Your task to perform on an android device: Show the shopping cart on costco. Image 0: 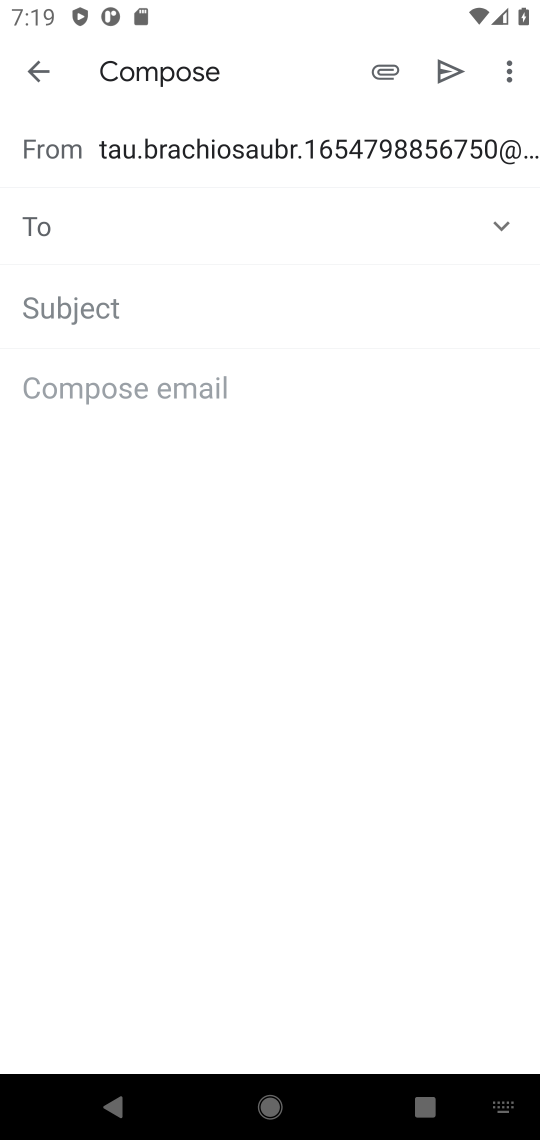
Step 0: press home button
Your task to perform on an android device: Show the shopping cart on costco. Image 1: 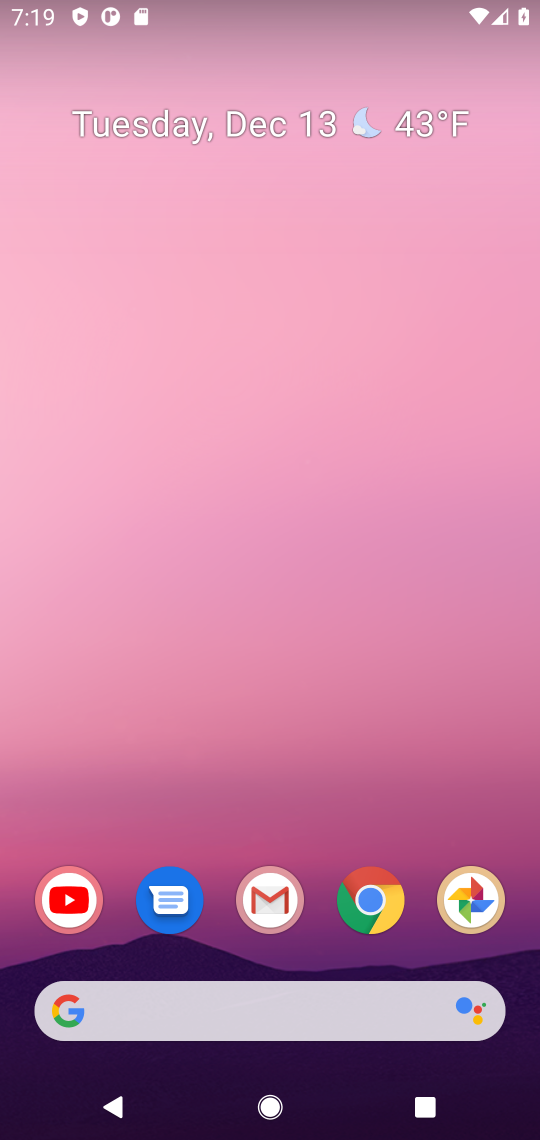
Step 1: click (361, 886)
Your task to perform on an android device: Show the shopping cart on costco. Image 2: 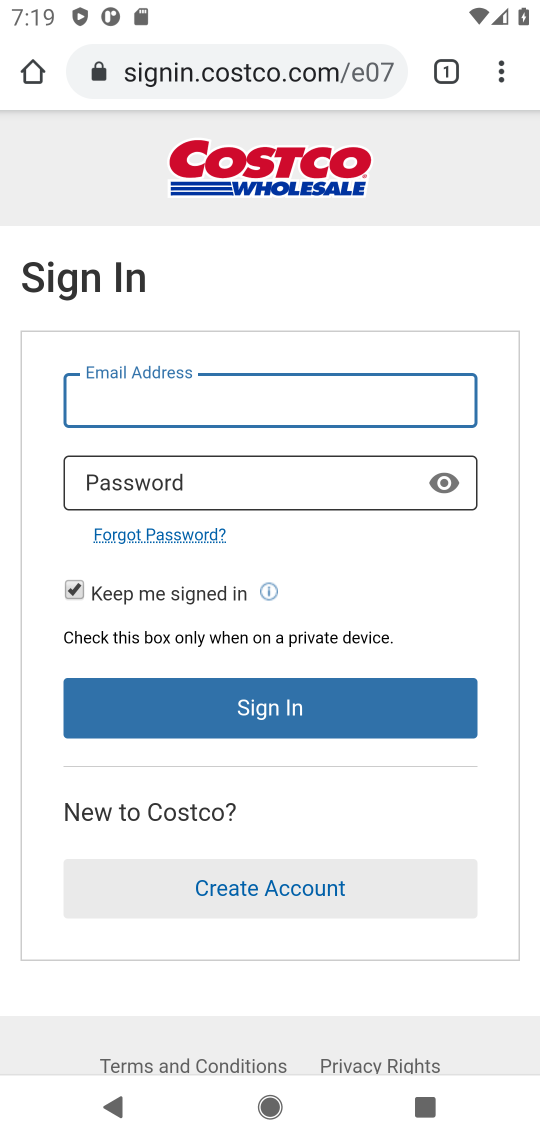
Step 2: click (210, 159)
Your task to perform on an android device: Show the shopping cart on costco. Image 3: 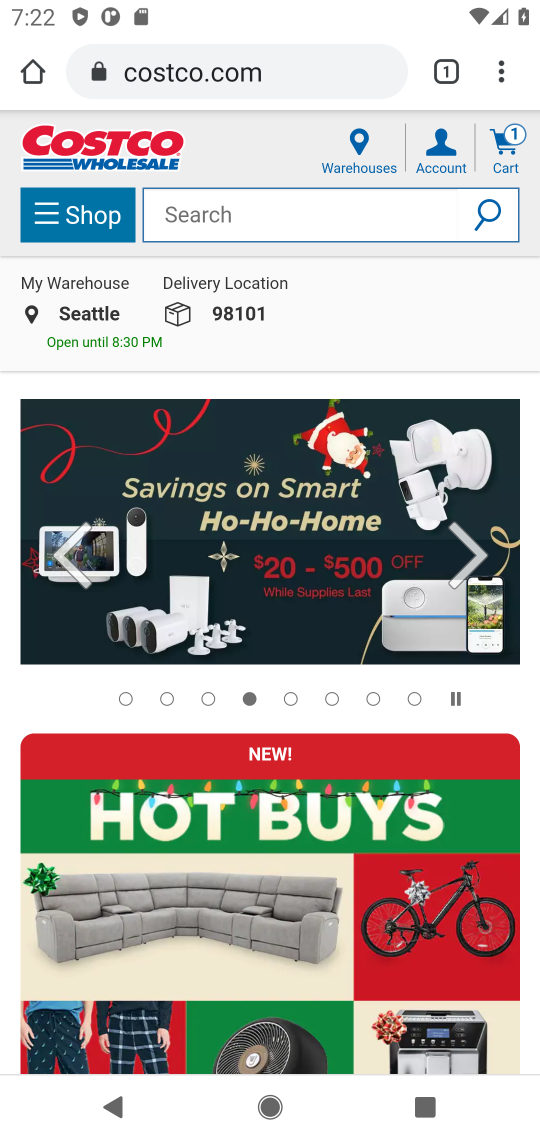
Step 3: task complete